Your task to perform on an android device: Open accessibility settings Image 0: 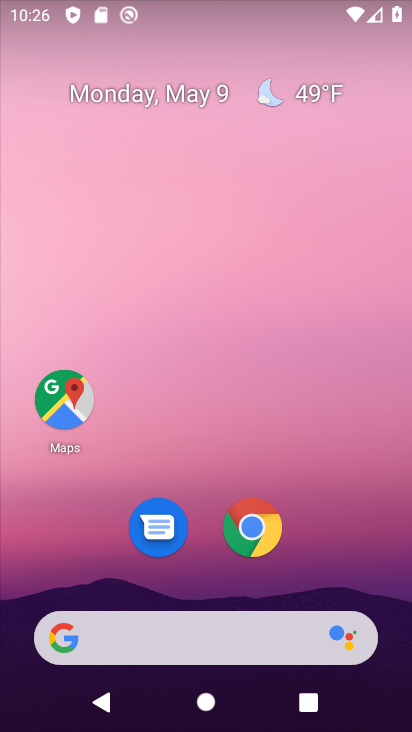
Step 0: drag from (333, 542) to (254, 51)
Your task to perform on an android device: Open accessibility settings Image 1: 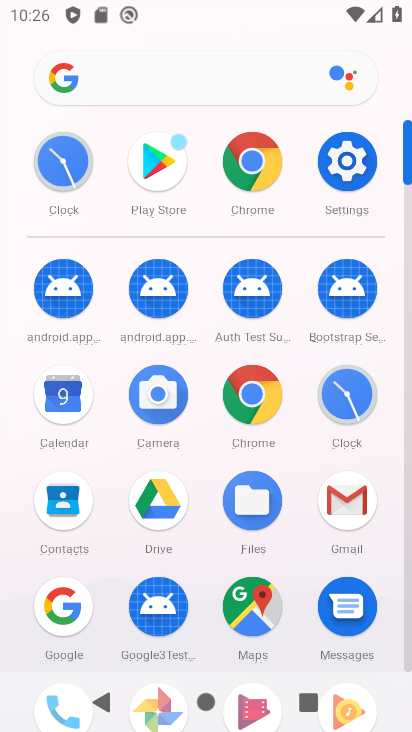
Step 1: click (343, 162)
Your task to perform on an android device: Open accessibility settings Image 2: 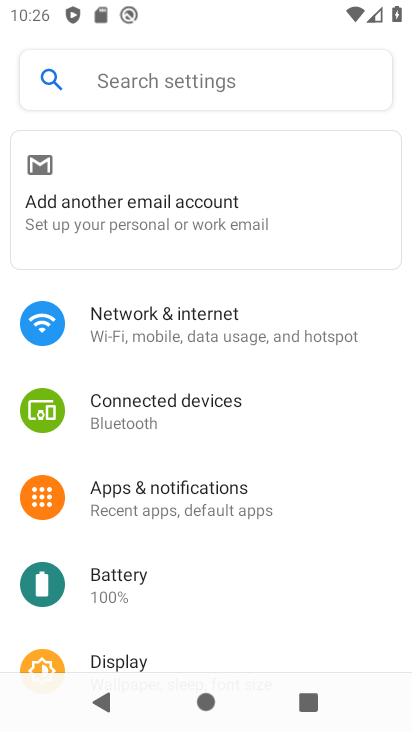
Step 2: drag from (152, 540) to (200, 413)
Your task to perform on an android device: Open accessibility settings Image 3: 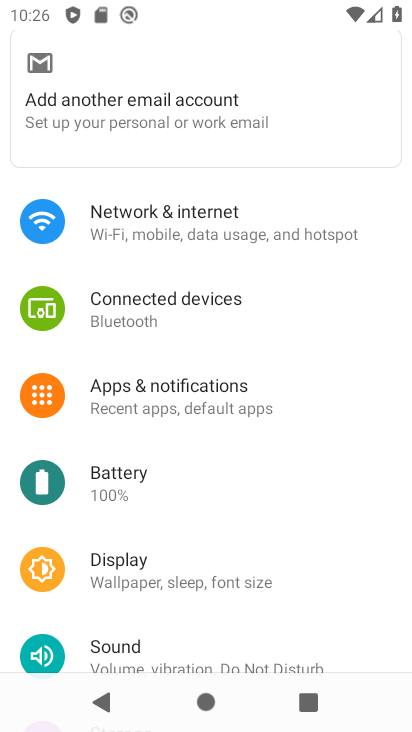
Step 3: drag from (143, 518) to (181, 390)
Your task to perform on an android device: Open accessibility settings Image 4: 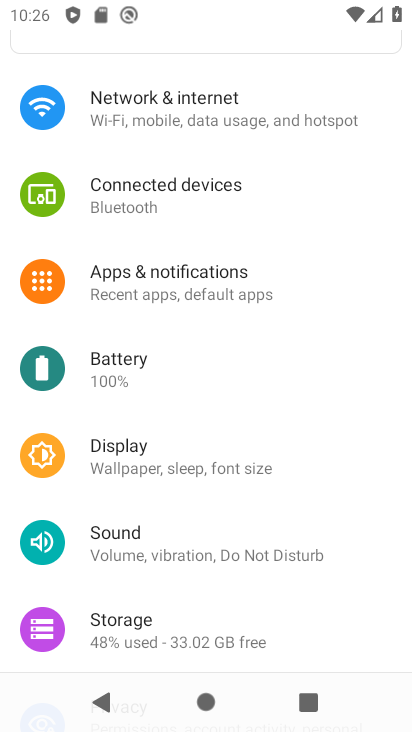
Step 4: drag from (133, 503) to (172, 368)
Your task to perform on an android device: Open accessibility settings Image 5: 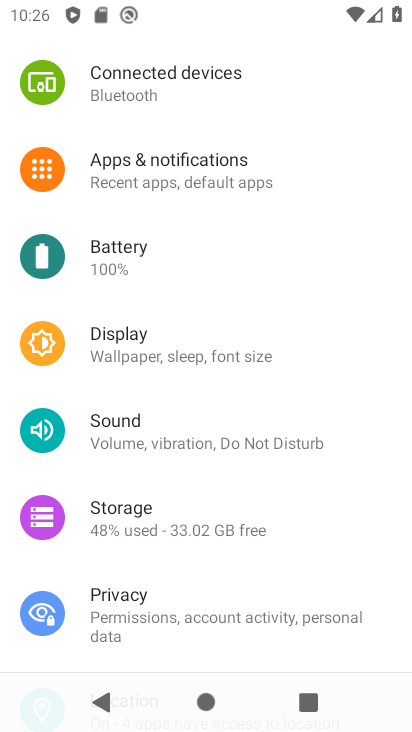
Step 5: drag from (119, 470) to (166, 314)
Your task to perform on an android device: Open accessibility settings Image 6: 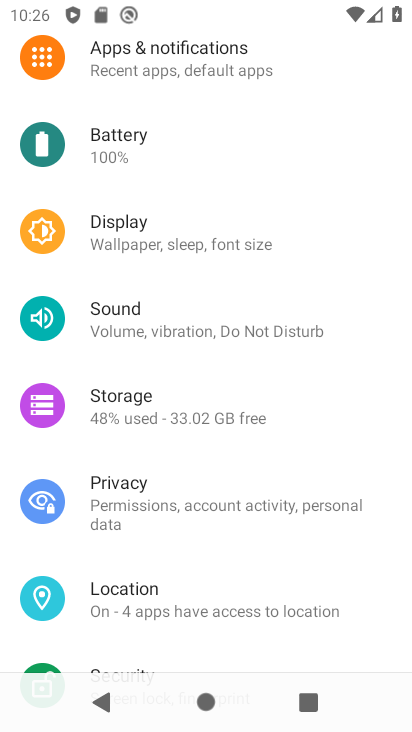
Step 6: drag from (112, 445) to (146, 310)
Your task to perform on an android device: Open accessibility settings Image 7: 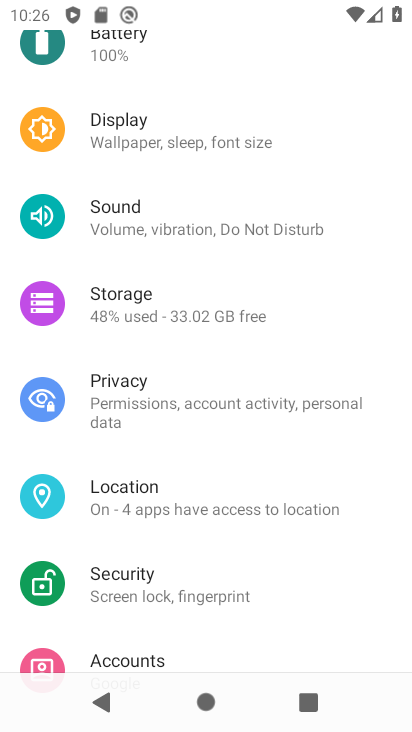
Step 7: drag from (109, 539) to (128, 368)
Your task to perform on an android device: Open accessibility settings Image 8: 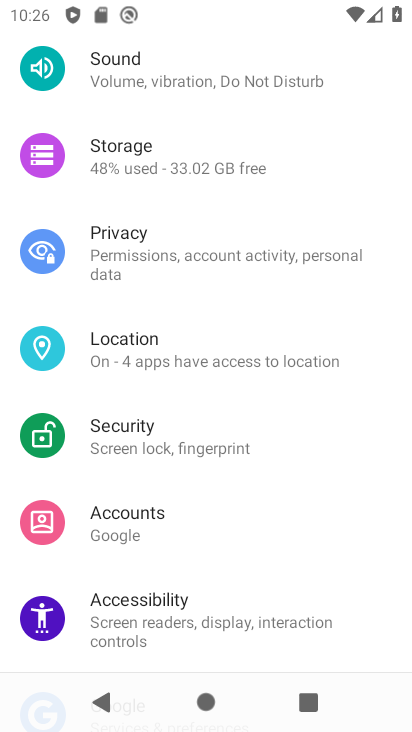
Step 8: drag from (106, 408) to (128, 261)
Your task to perform on an android device: Open accessibility settings Image 9: 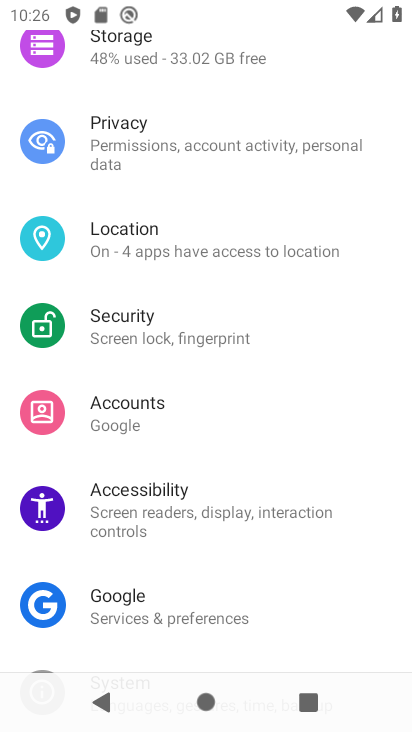
Step 9: drag from (100, 451) to (110, 322)
Your task to perform on an android device: Open accessibility settings Image 10: 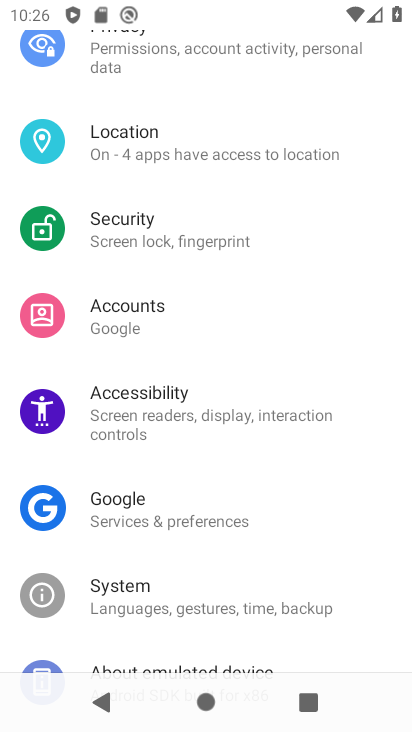
Step 10: click (150, 392)
Your task to perform on an android device: Open accessibility settings Image 11: 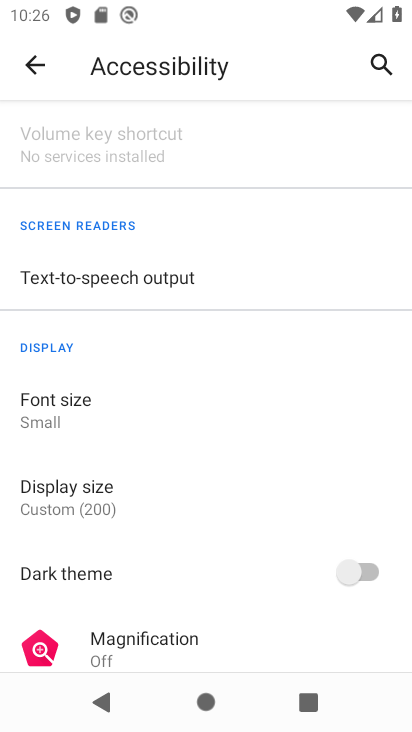
Step 11: task complete